Your task to perform on an android device: uninstall "DoorDash - Dasher" Image 0: 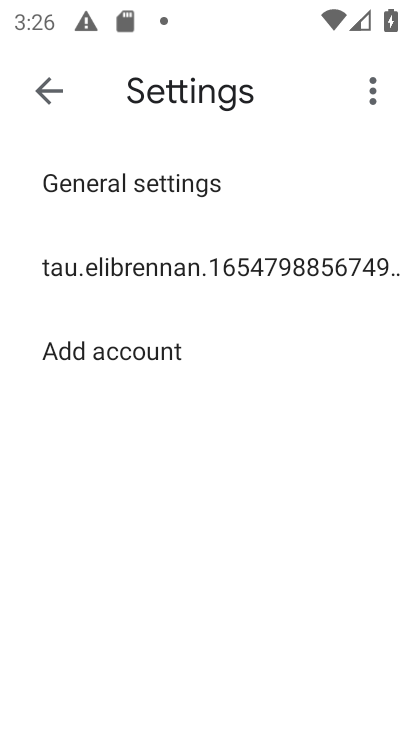
Step 0: press home button
Your task to perform on an android device: uninstall "DoorDash - Dasher" Image 1: 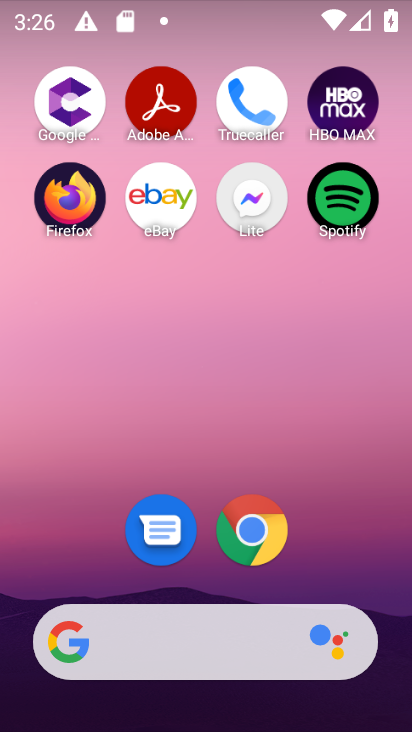
Step 1: drag from (330, 465) to (283, 17)
Your task to perform on an android device: uninstall "DoorDash - Dasher" Image 2: 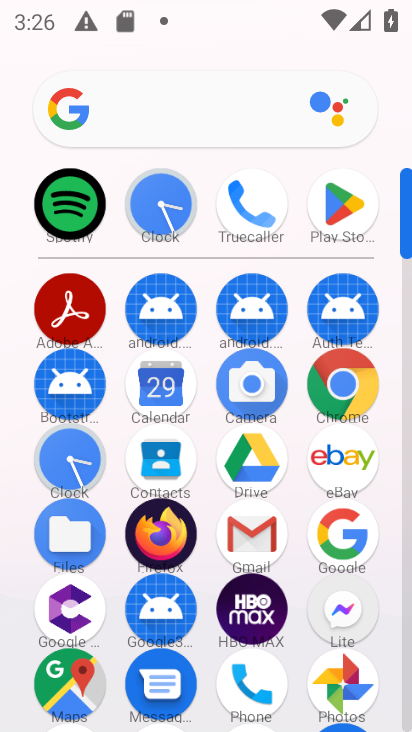
Step 2: click (333, 213)
Your task to perform on an android device: uninstall "DoorDash - Dasher" Image 3: 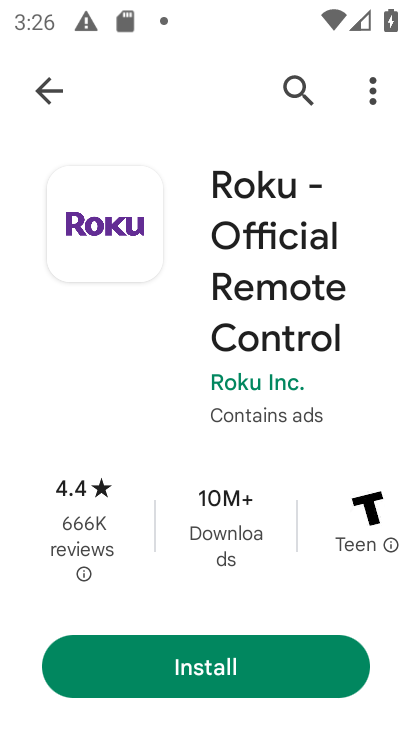
Step 3: click (292, 88)
Your task to perform on an android device: uninstall "DoorDash - Dasher" Image 4: 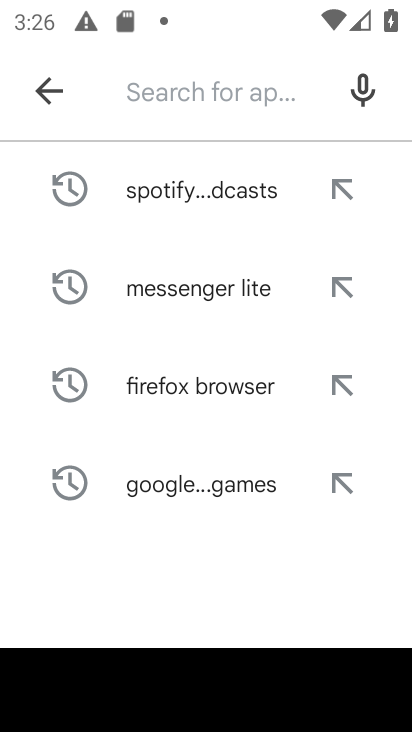
Step 4: type "DoorDash - Dasher"
Your task to perform on an android device: uninstall "DoorDash - Dasher" Image 5: 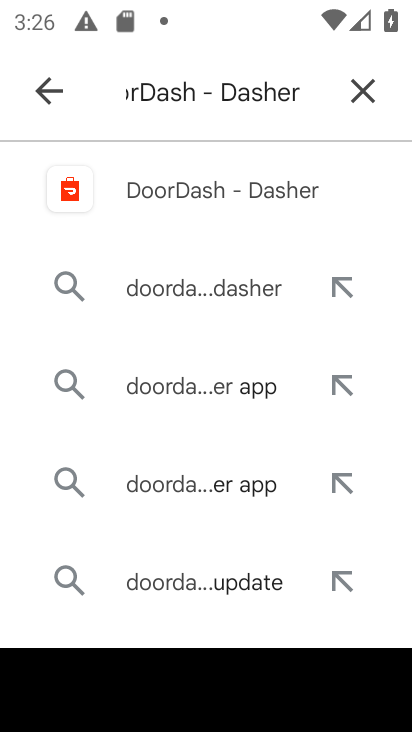
Step 5: click (182, 196)
Your task to perform on an android device: uninstall "DoorDash - Dasher" Image 6: 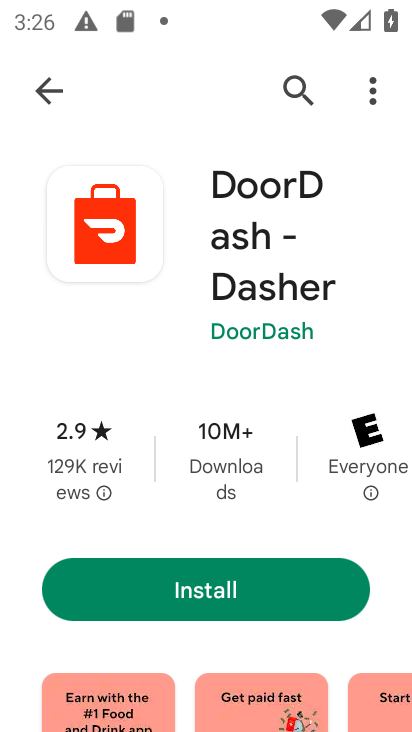
Step 6: task complete